Your task to perform on an android device: Toggle the flashlight Image 0: 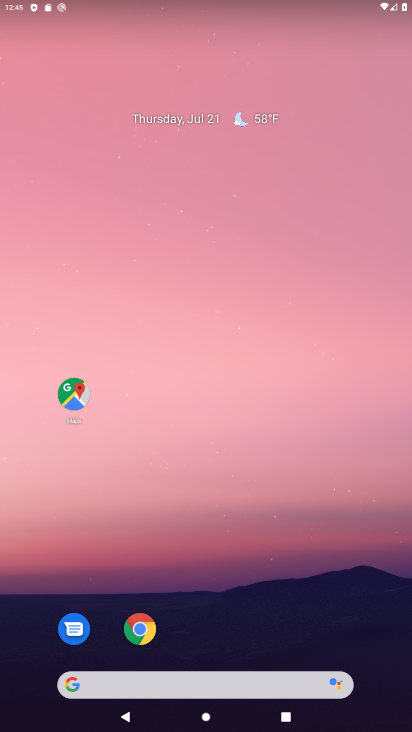
Step 0: drag from (247, 686) to (231, 60)
Your task to perform on an android device: Toggle the flashlight Image 1: 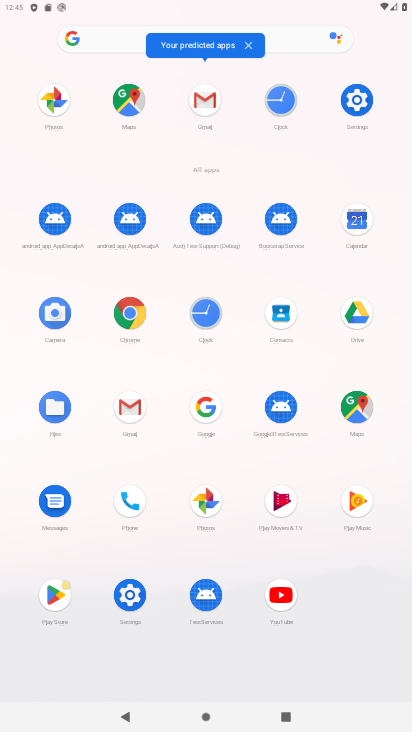
Step 1: click (357, 101)
Your task to perform on an android device: Toggle the flashlight Image 2: 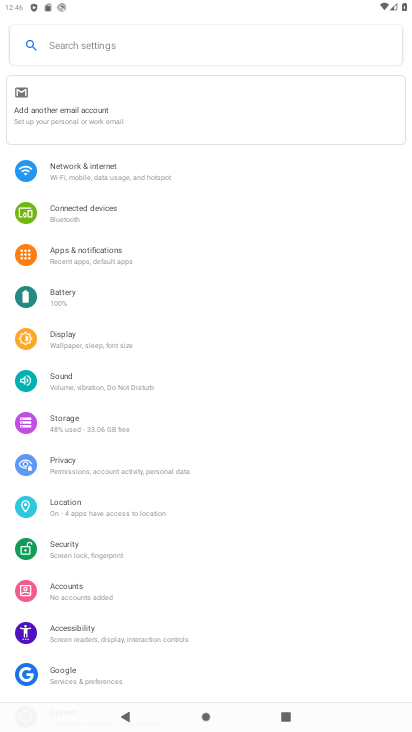
Step 2: click (90, 345)
Your task to perform on an android device: Toggle the flashlight Image 3: 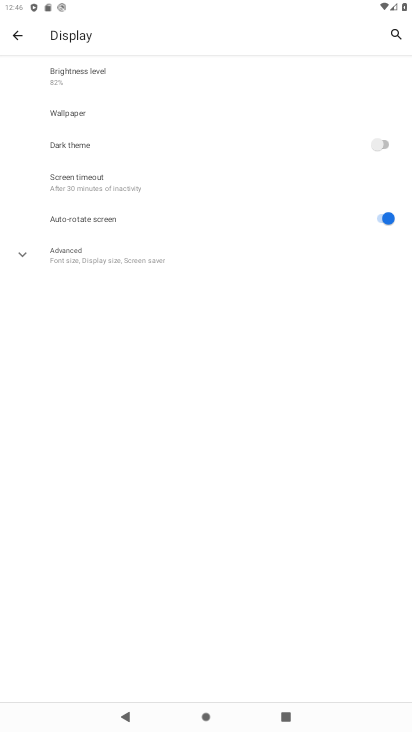
Step 3: click (135, 254)
Your task to perform on an android device: Toggle the flashlight Image 4: 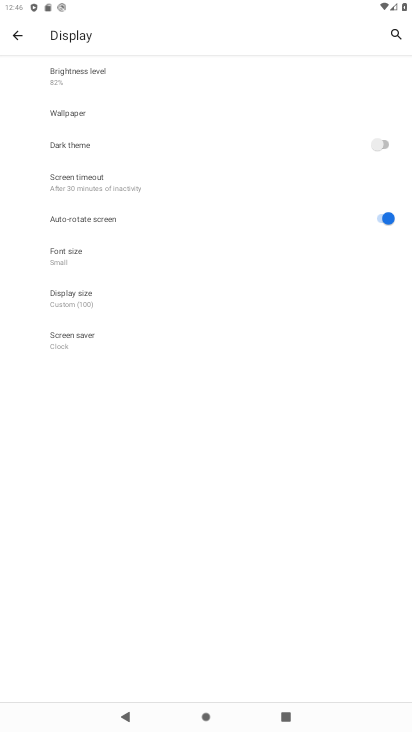
Step 4: click (70, 337)
Your task to perform on an android device: Toggle the flashlight Image 5: 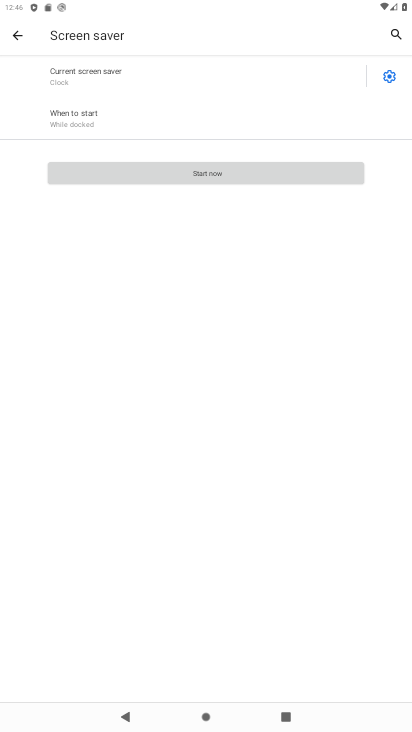
Step 5: press back button
Your task to perform on an android device: Toggle the flashlight Image 6: 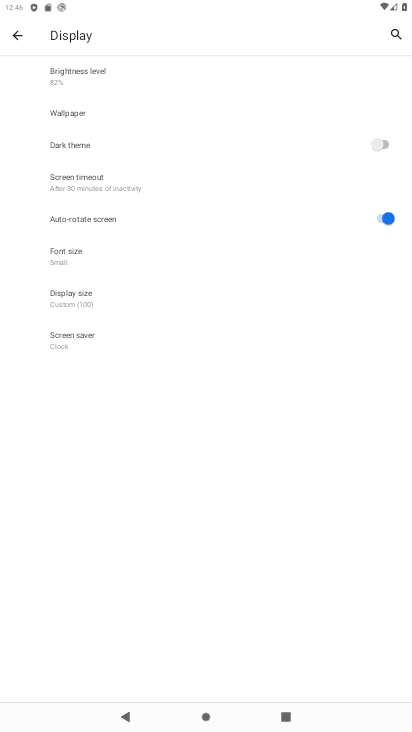
Step 6: click (86, 335)
Your task to perform on an android device: Toggle the flashlight Image 7: 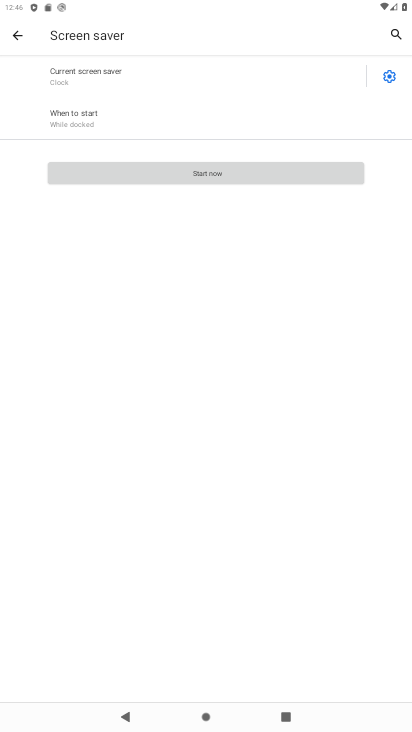
Step 7: task complete